Your task to perform on an android device: check storage Image 0: 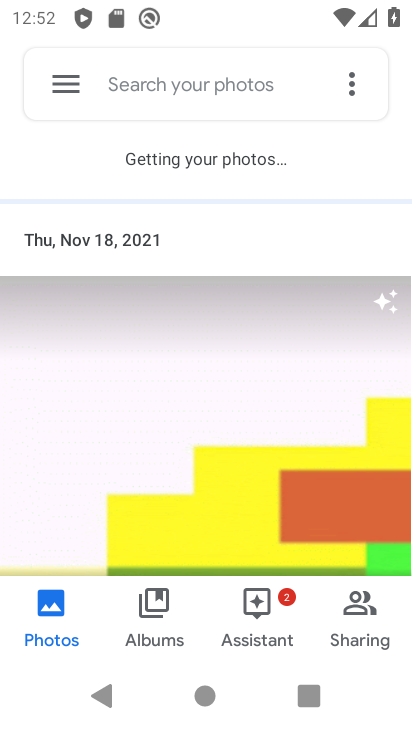
Step 0: press home button
Your task to perform on an android device: check storage Image 1: 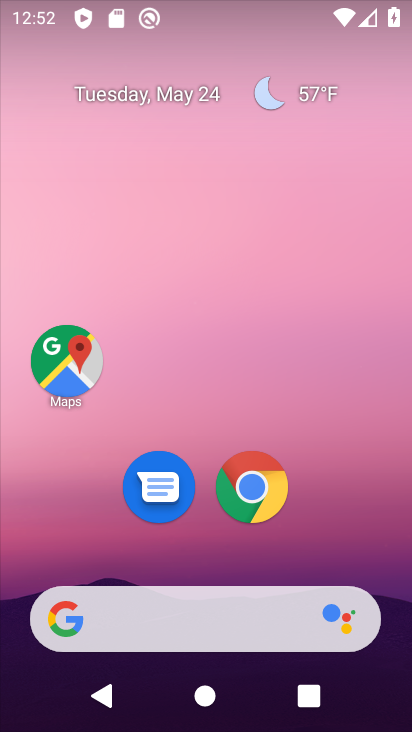
Step 1: drag from (225, 724) to (220, 229)
Your task to perform on an android device: check storage Image 2: 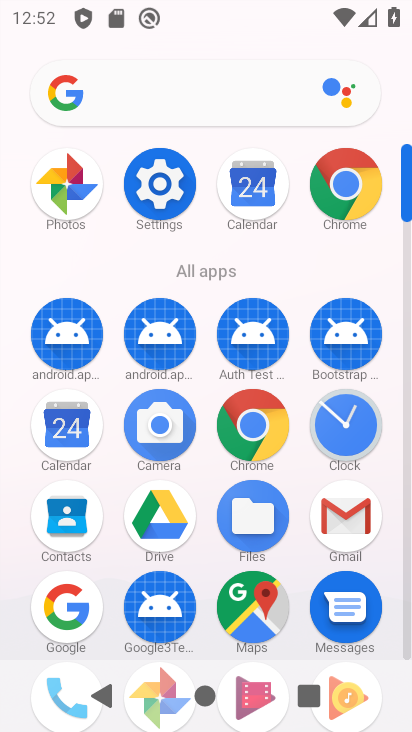
Step 2: click (152, 180)
Your task to perform on an android device: check storage Image 3: 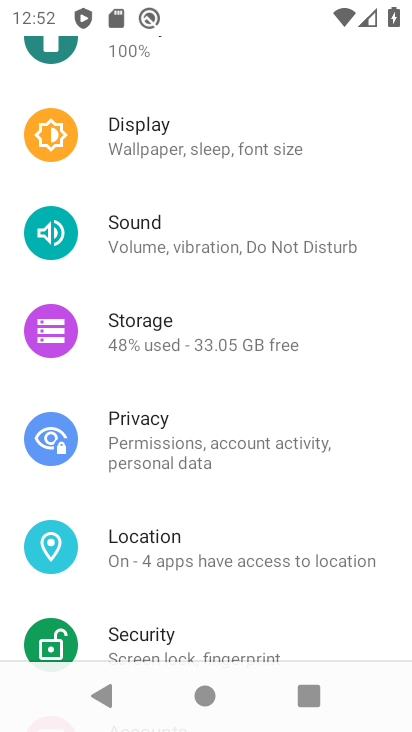
Step 3: click (144, 324)
Your task to perform on an android device: check storage Image 4: 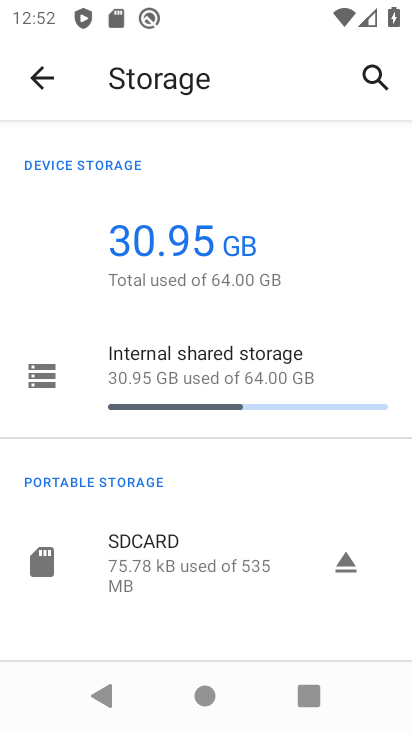
Step 4: task complete